Your task to perform on an android device: open chrome and create a bookmark for the current page Image 0: 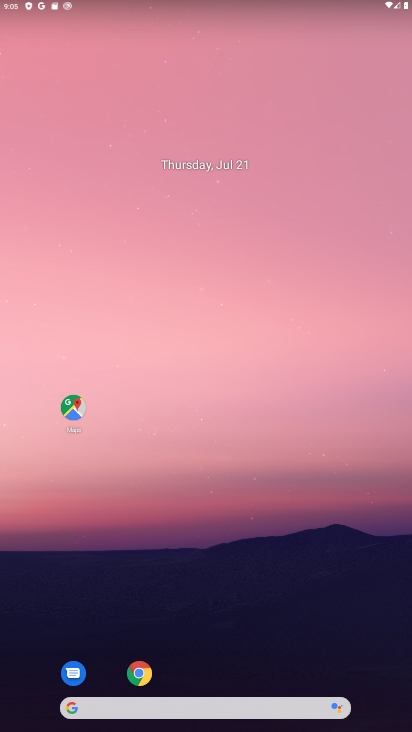
Step 0: press home button
Your task to perform on an android device: open chrome and create a bookmark for the current page Image 1: 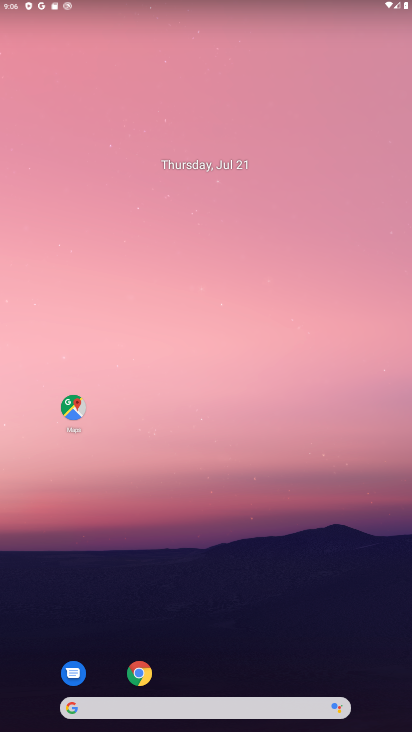
Step 1: click (137, 667)
Your task to perform on an android device: open chrome and create a bookmark for the current page Image 2: 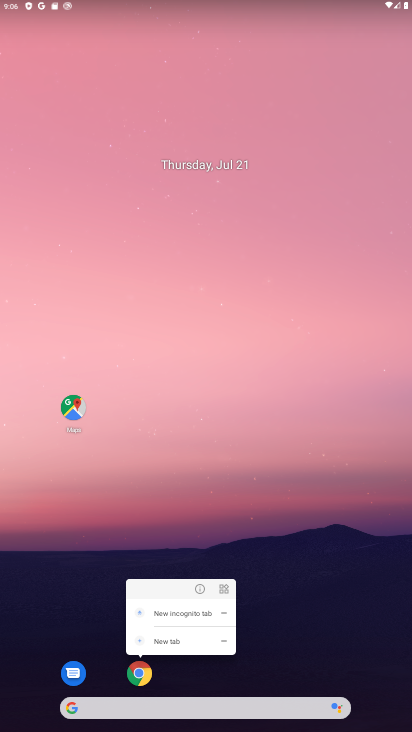
Step 2: click (136, 670)
Your task to perform on an android device: open chrome and create a bookmark for the current page Image 3: 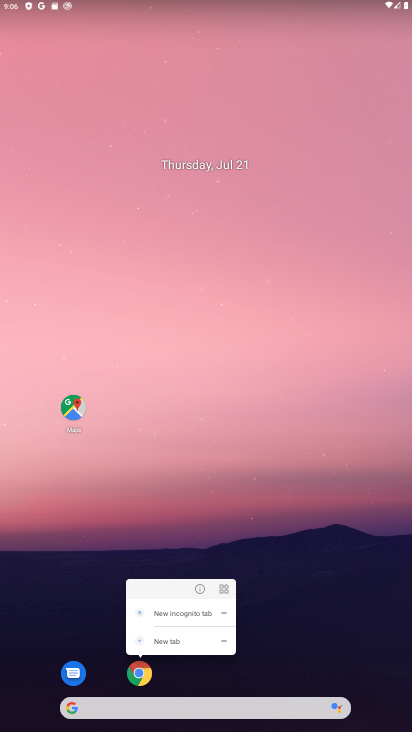
Step 3: click (136, 668)
Your task to perform on an android device: open chrome and create a bookmark for the current page Image 4: 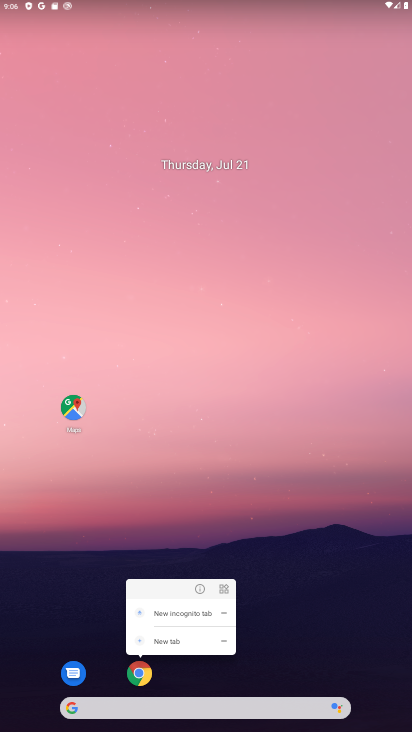
Step 4: click (141, 672)
Your task to perform on an android device: open chrome and create a bookmark for the current page Image 5: 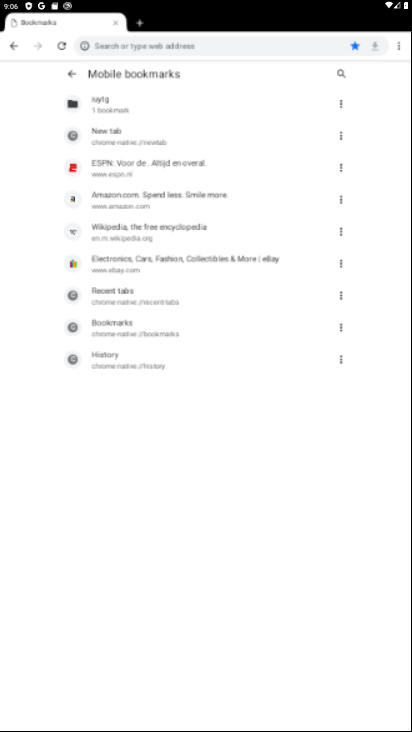
Step 5: task complete